Your task to perform on an android device: Open Android settings Image 0: 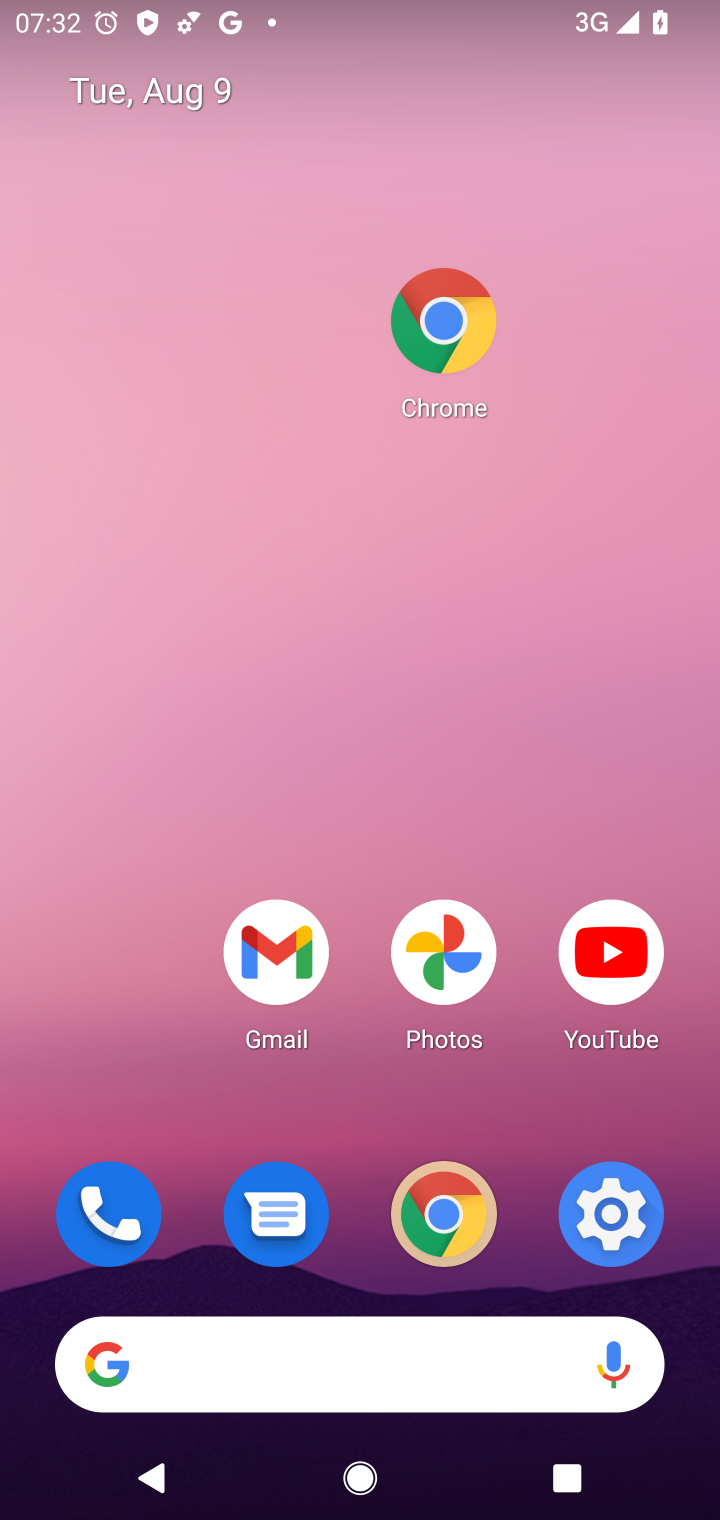
Step 0: press home button
Your task to perform on an android device: Open Android settings Image 1: 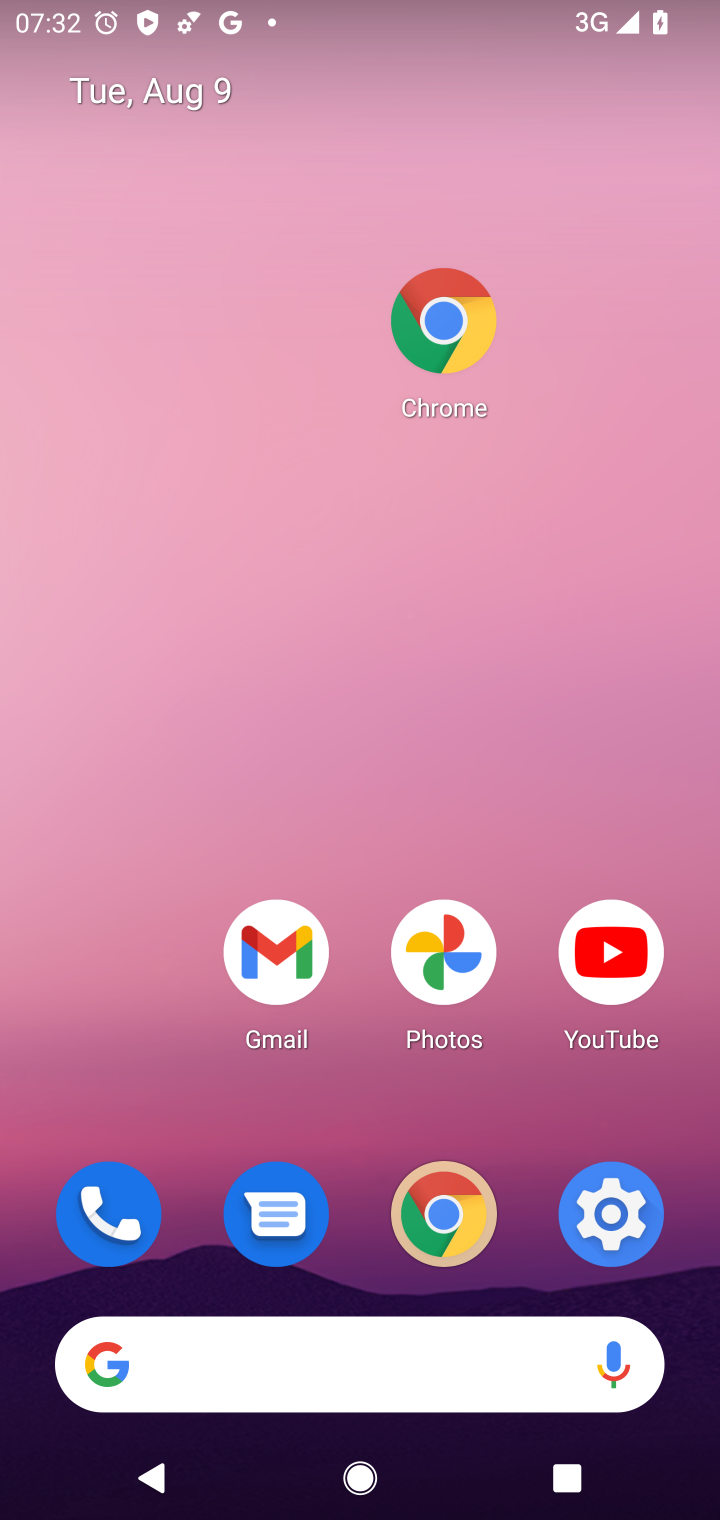
Step 1: click (617, 1201)
Your task to perform on an android device: Open Android settings Image 2: 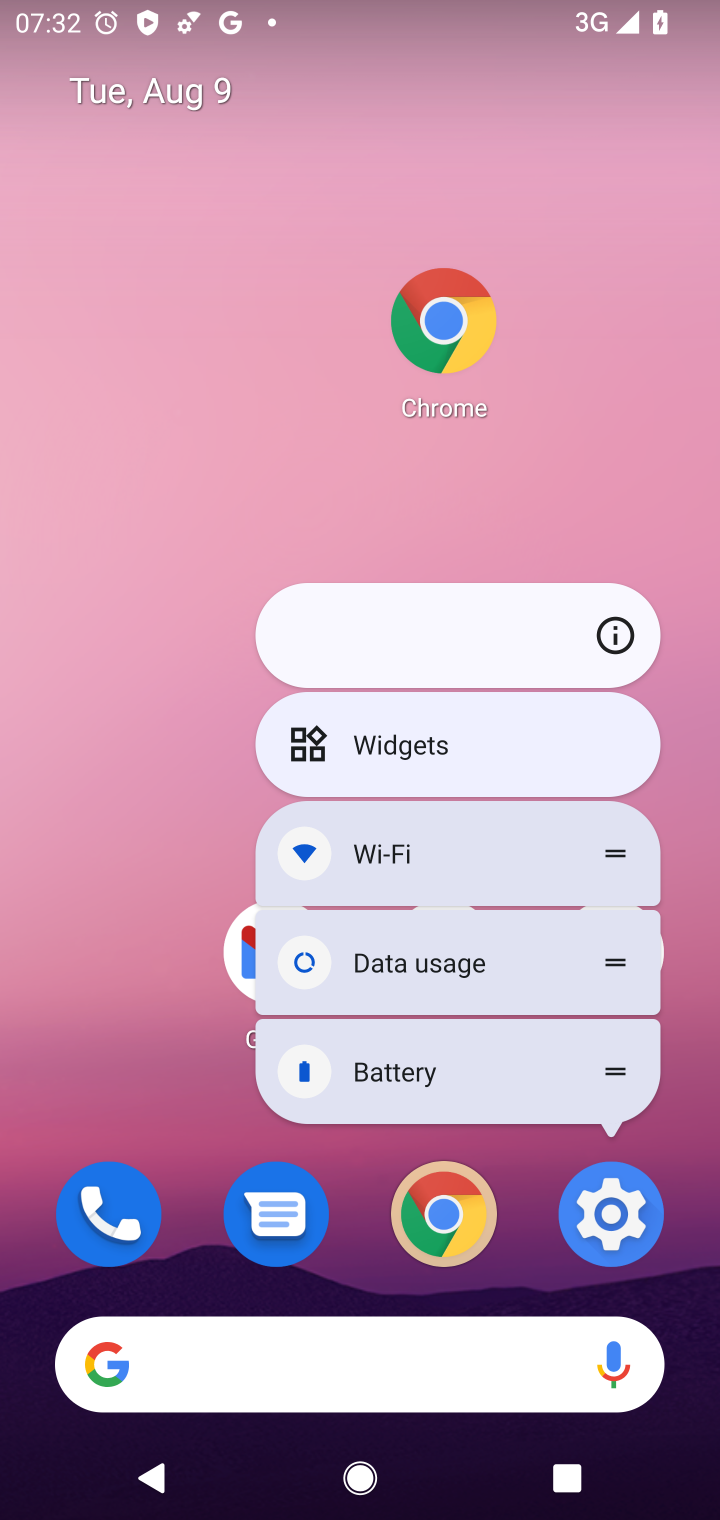
Step 2: click (617, 1205)
Your task to perform on an android device: Open Android settings Image 3: 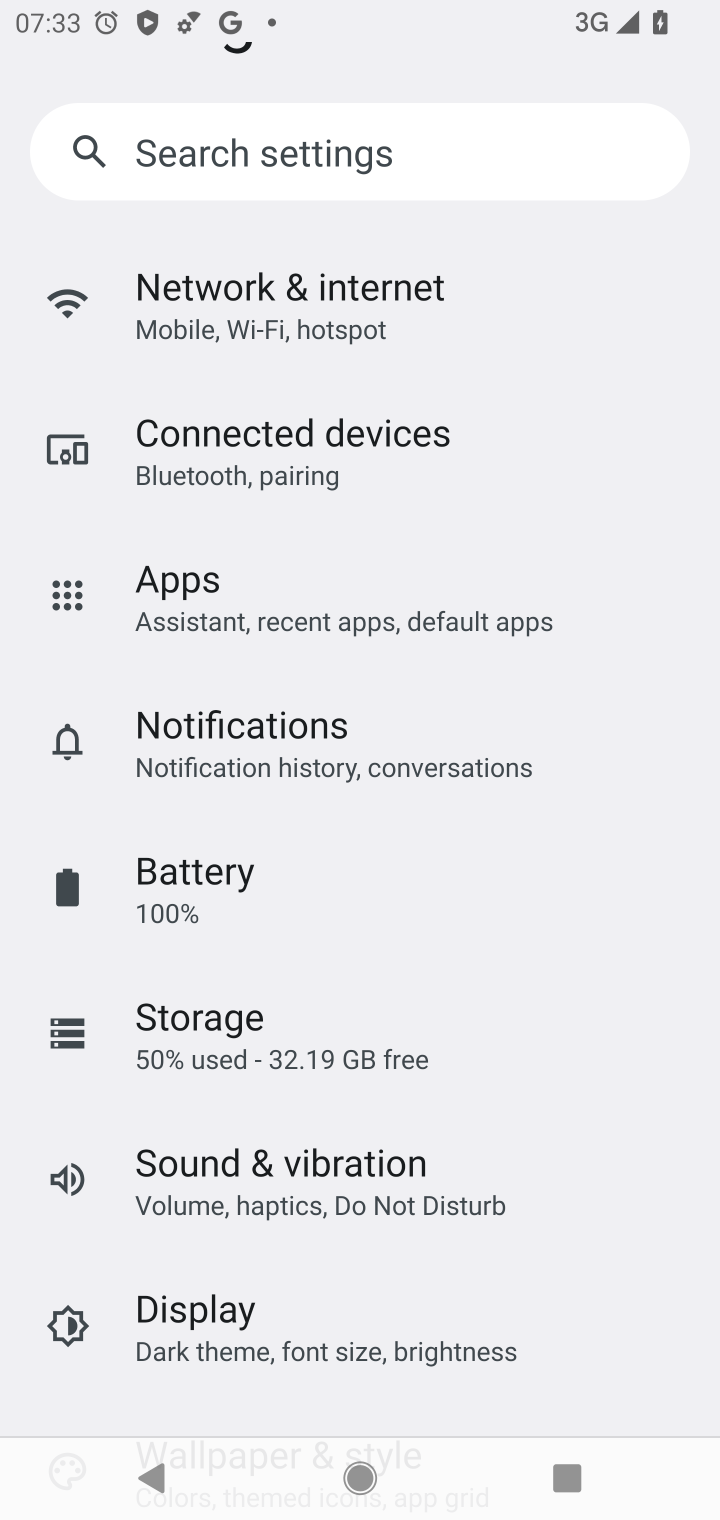
Step 3: click (358, 156)
Your task to perform on an android device: Open Android settings Image 4: 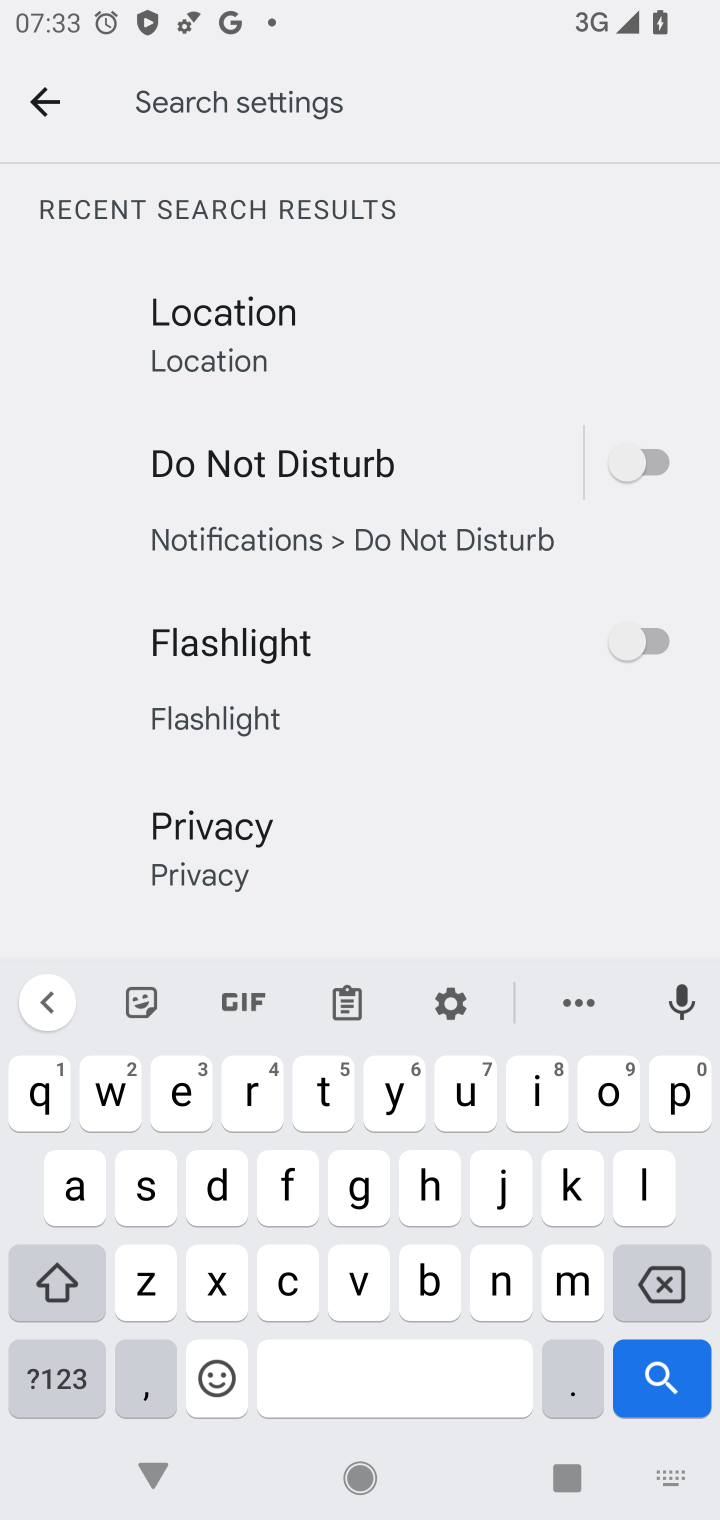
Step 4: click (66, 1186)
Your task to perform on an android device: Open Android settings Image 5: 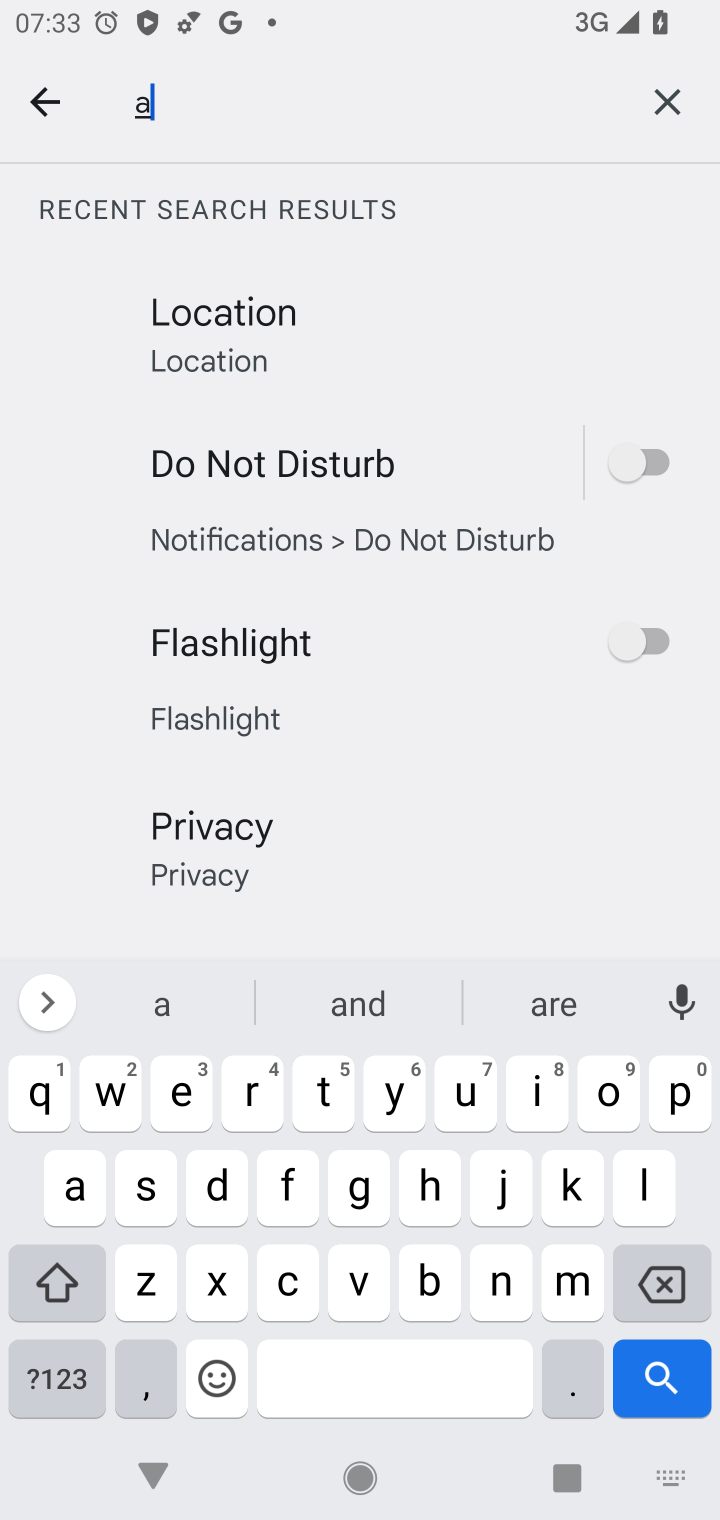
Step 5: click (505, 1287)
Your task to perform on an android device: Open Android settings Image 6: 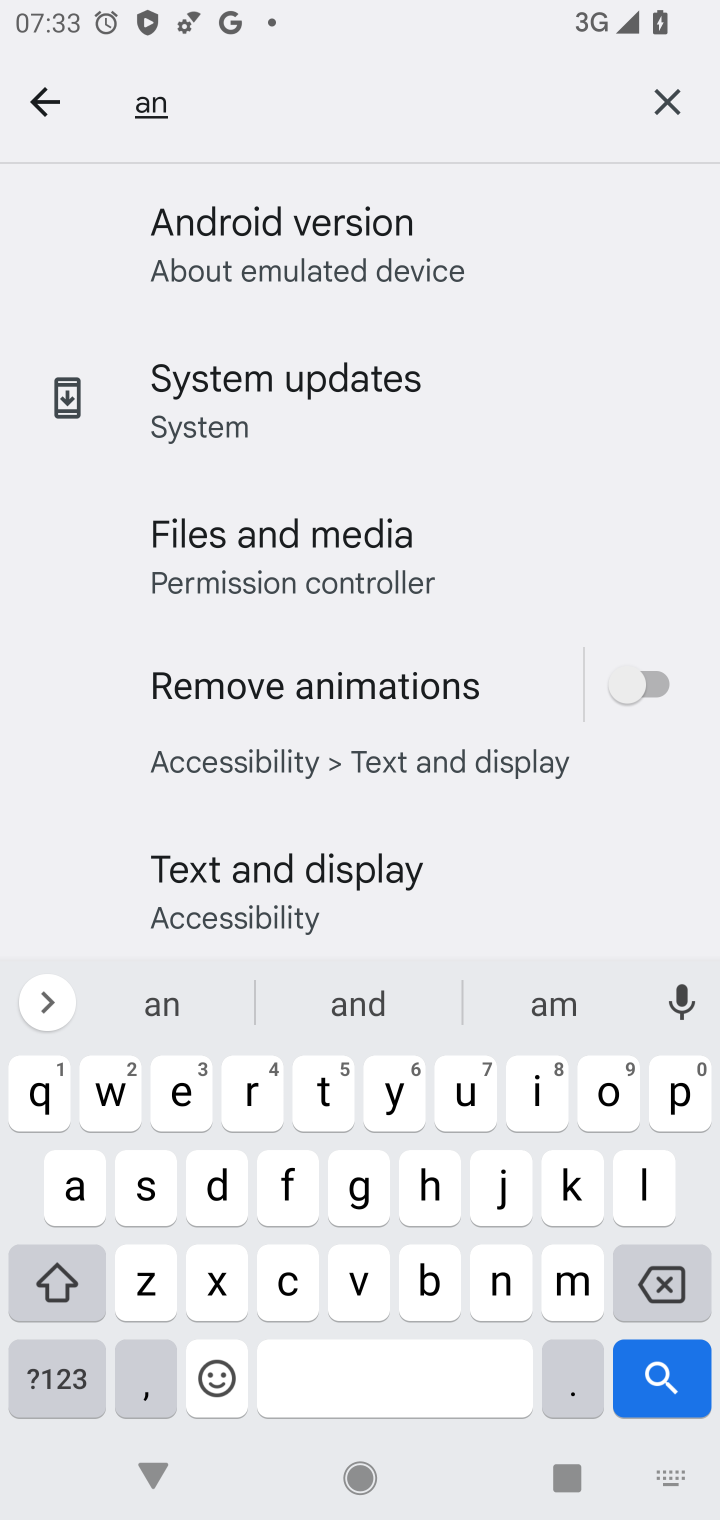
Step 6: click (350, 251)
Your task to perform on an android device: Open Android settings Image 7: 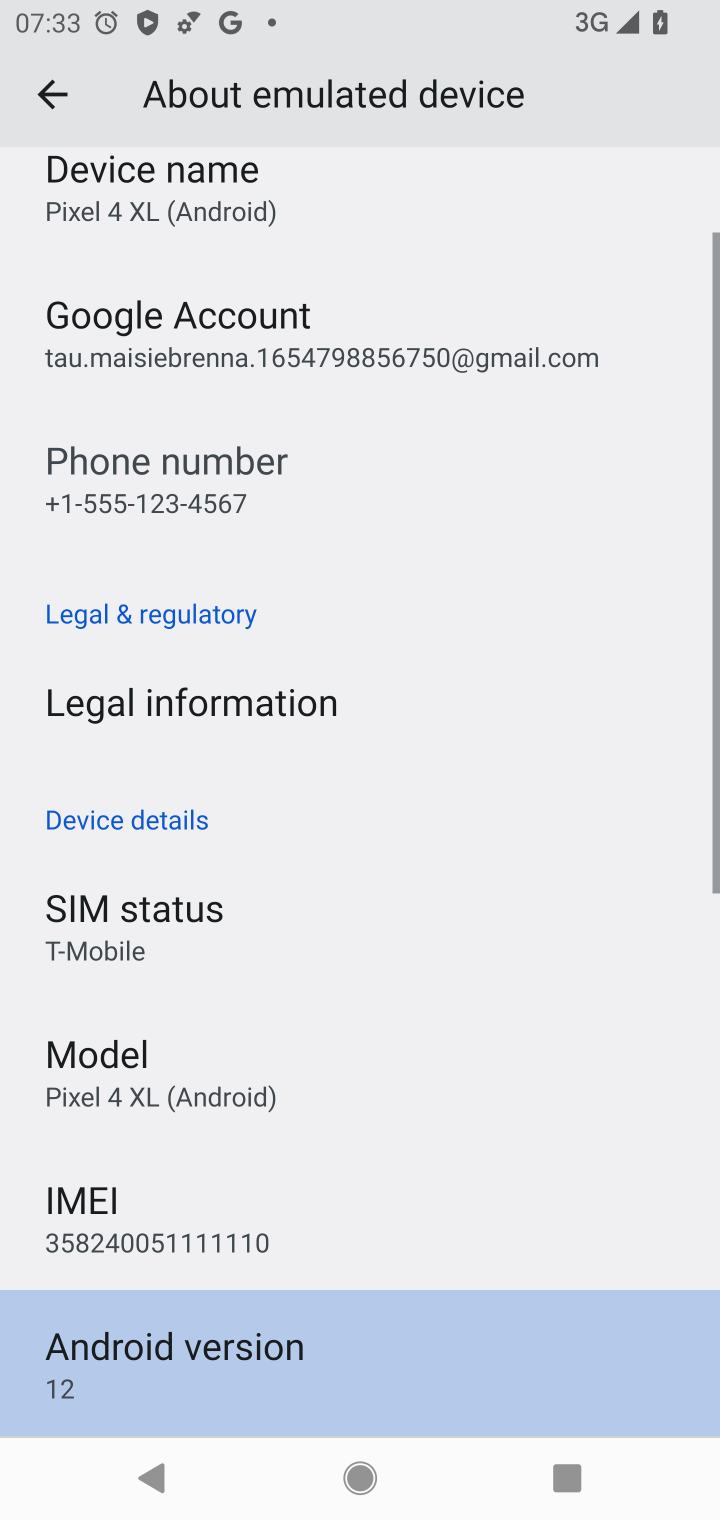
Step 7: click (161, 1371)
Your task to perform on an android device: Open Android settings Image 8: 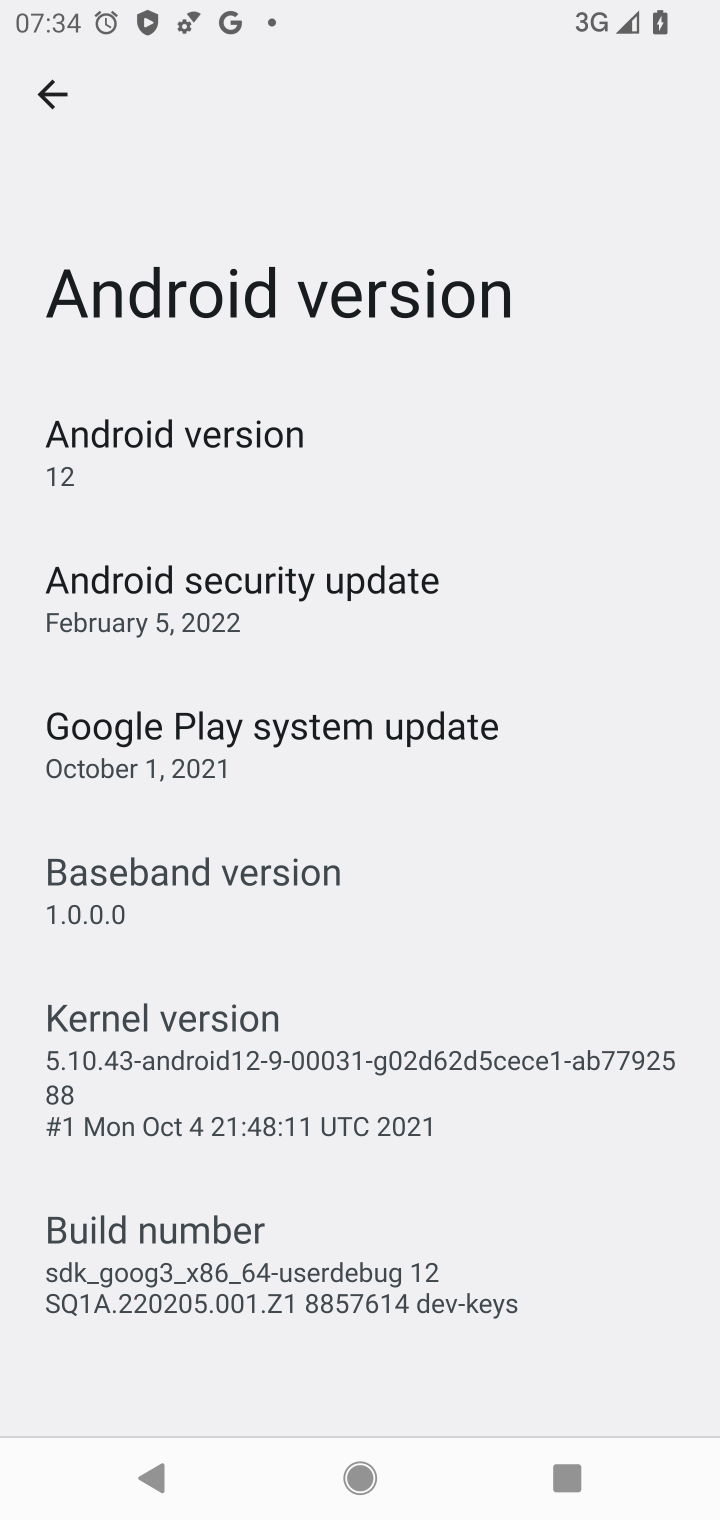
Step 8: task complete